Your task to perform on an android device: Set the phone to "Do not disturb". Image 0: 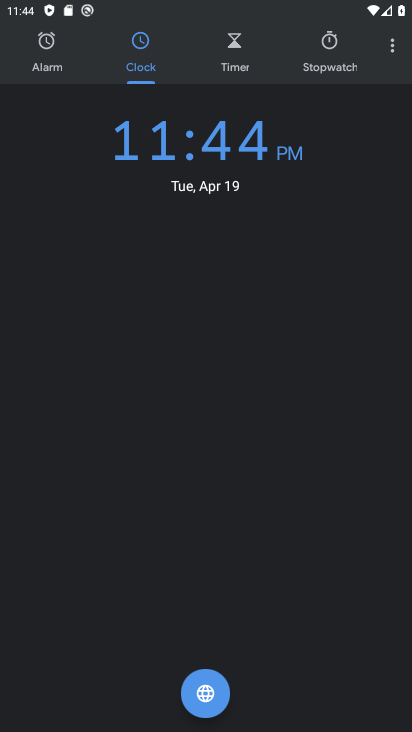
Step 0: press home button
Your task to perform on an android device: Set the phone to "Do not disturb". Image 1: 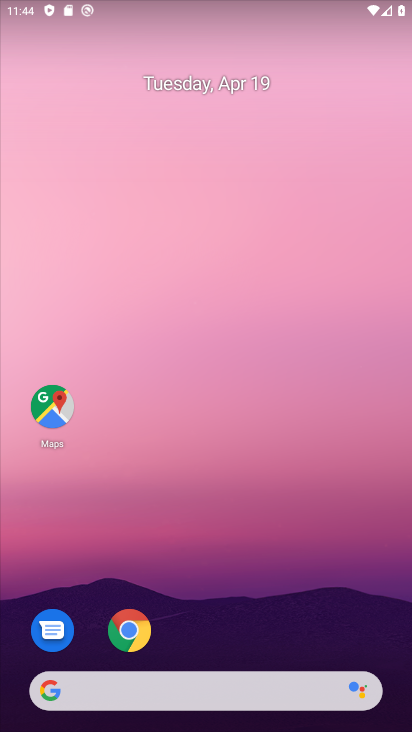
Step 1: drag from (213, 608) to (238, 81)
Your task to perform on an android device: Set the phone to "Do not disturb". Image 2: 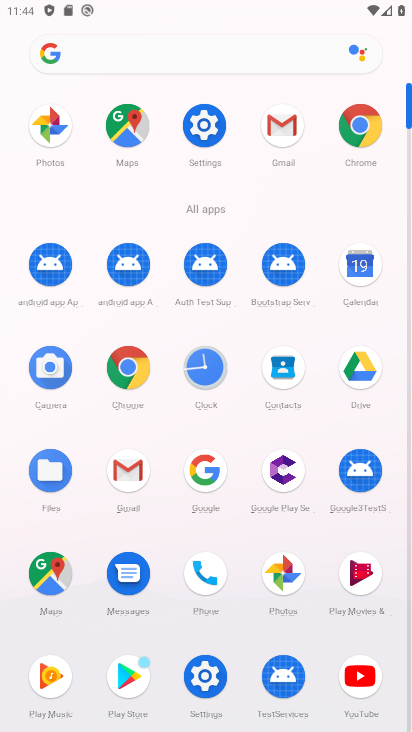
Step 2: click (197, 120)
Your task to perform on an android device: Set the phone to "Do not disturb". Image 3: 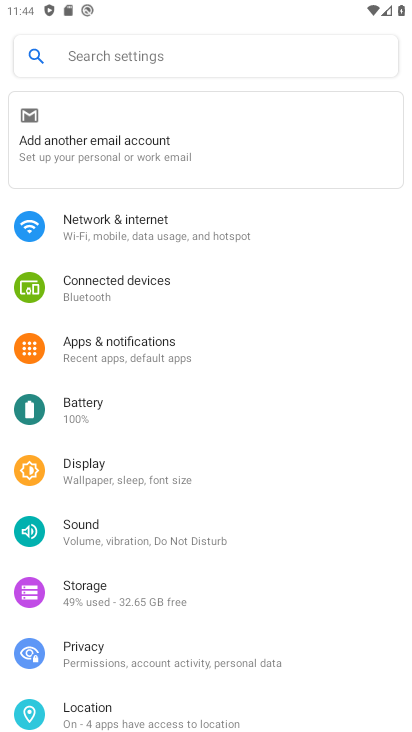
Step 3: click (149, 539)
Your task to perform on an android device: Set the phone to "Do not disturb". Image 4: 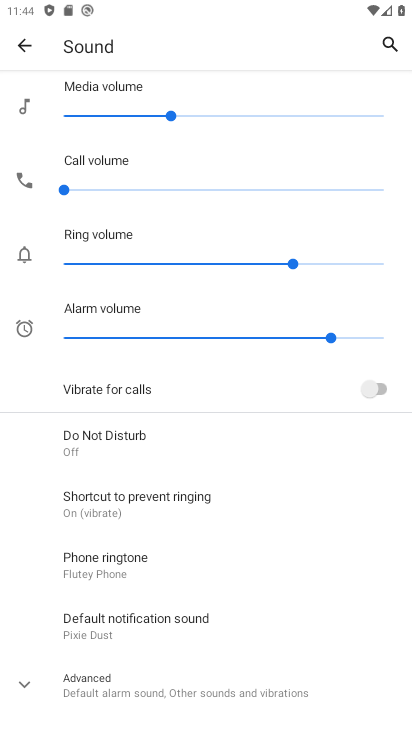
Step 4: click (85, 445)
Your task to perform on an android device: Set the phone to "Do not disturb". Image 5: 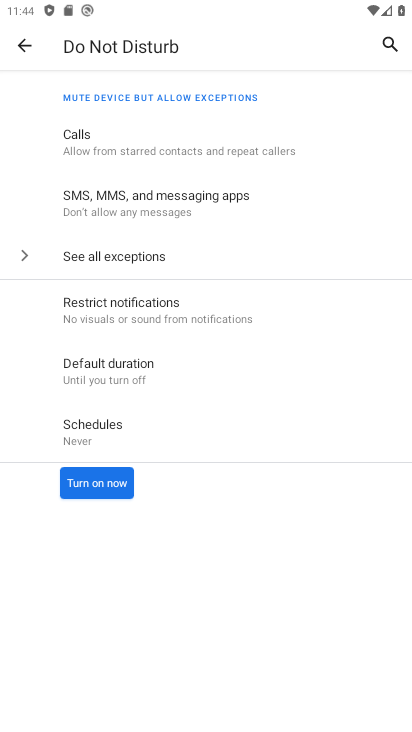
Step 5: click (99, 486)
Your task to perform on an android device: Set the phone to "Do not disturb". Image 6: 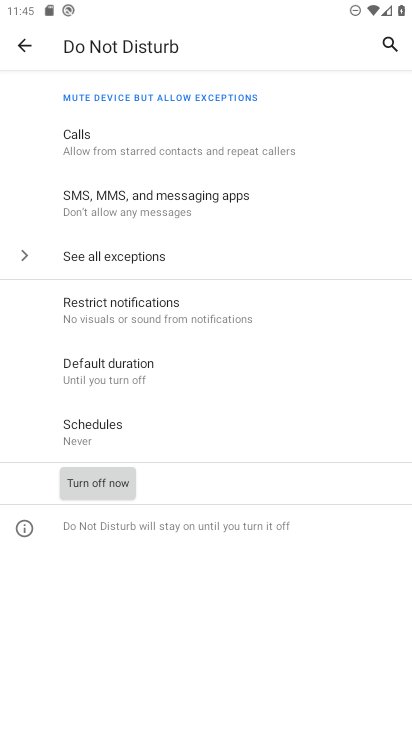
Step 6: task complete